Your task to perform on an android device: change the clock style Image 0: 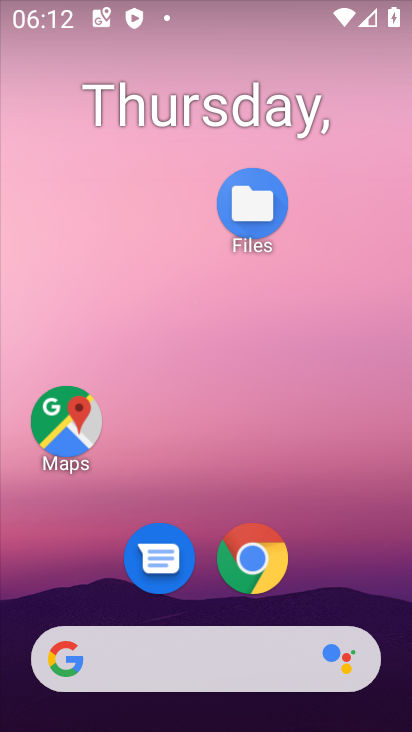
Step 0: drag from (312, 599) to (329, 224)
Your task to perform on an android device: change the clock style Image 1: 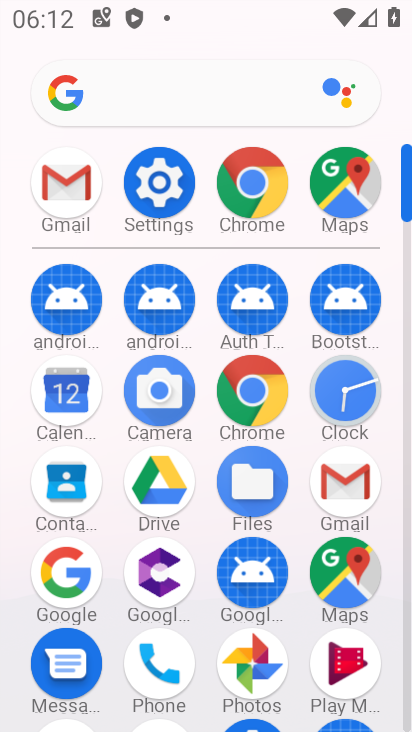
Step 1: click (343, 413)
Your task to perform on an android device: change the clock style Image 2: 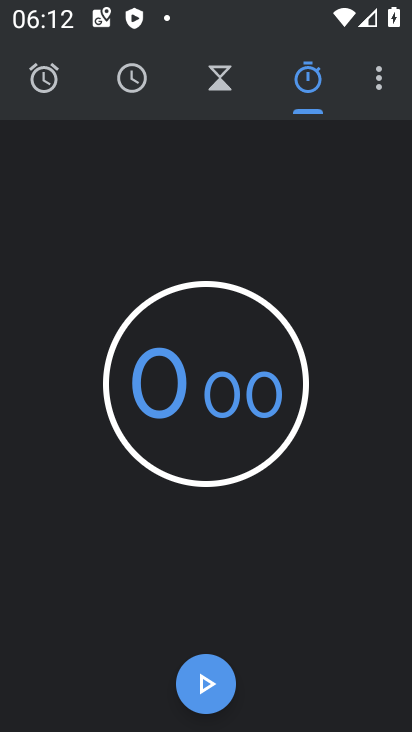
Step 2: click (374, 86)
Your task to perform on an android device: change the clock style Image 3: 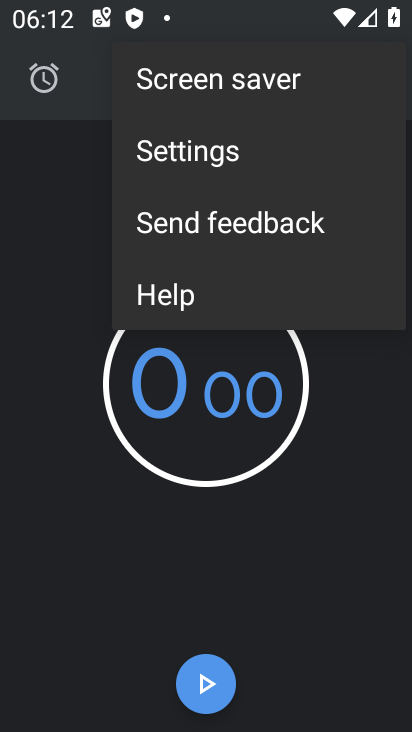
Step 3: click (222, 165)
Your task to perform on an android device: change the clock style Image 4: 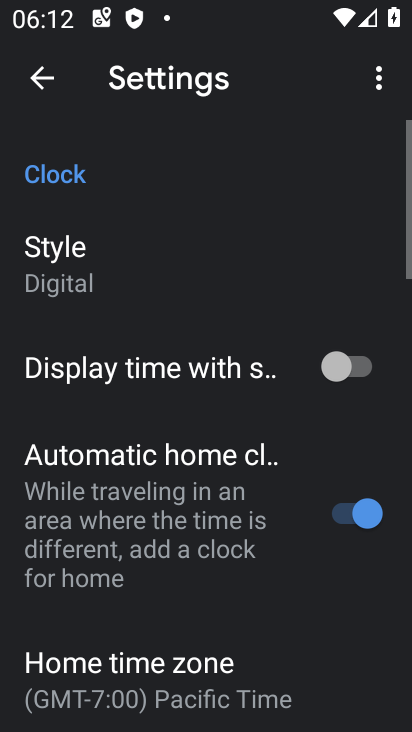
Step 4: click (85, 289)
Your task to perform on an android device: change the clock style Image 5: 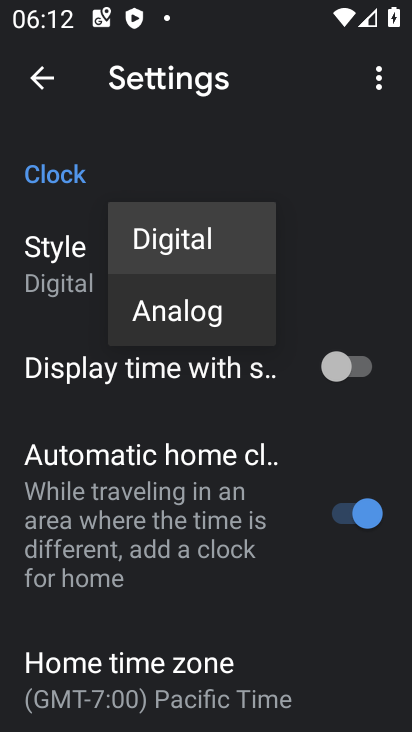
Step 5: click (157, 312)
Your task to perform on an android device: change the clock style Image 6: 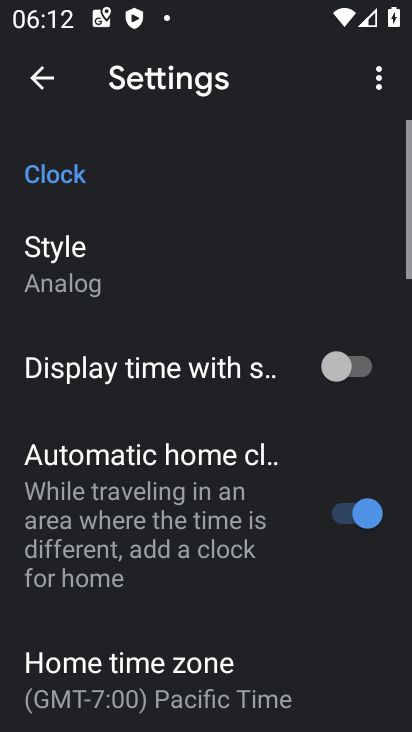
Step 6: task complete